Your task to perform on an android device: See recent photos Image 0: 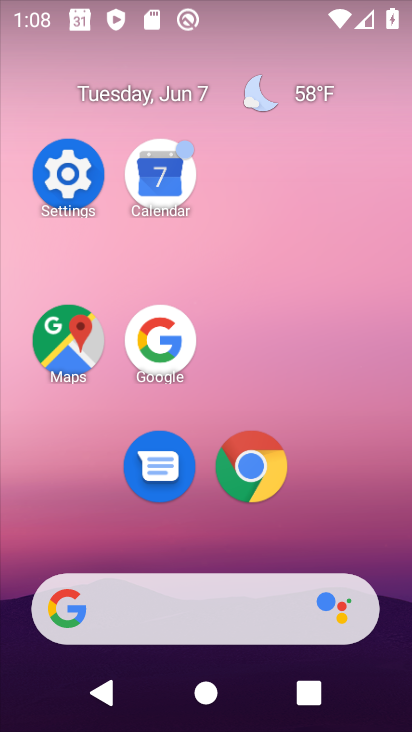
Step 0: drag from (355, 512) to (344, 129)
Your task to perform on an android device: See recent photos Image 1: 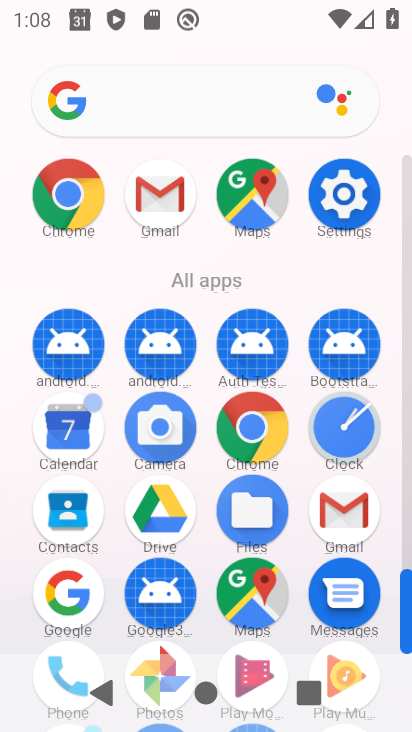
Step 1: drag from (217, 545) to (189, 143)
Your task to perform on an android device: See recent photos Image 2: 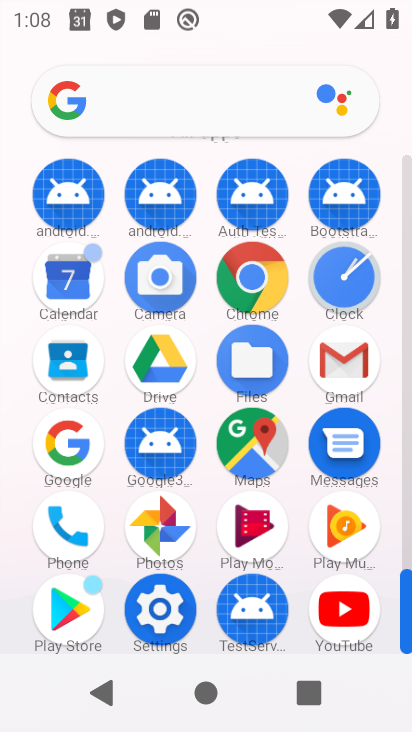
Step 2: drag from (169, 521) to (229, 321)
Your task to perform on an android device: See recent photos Image 3: 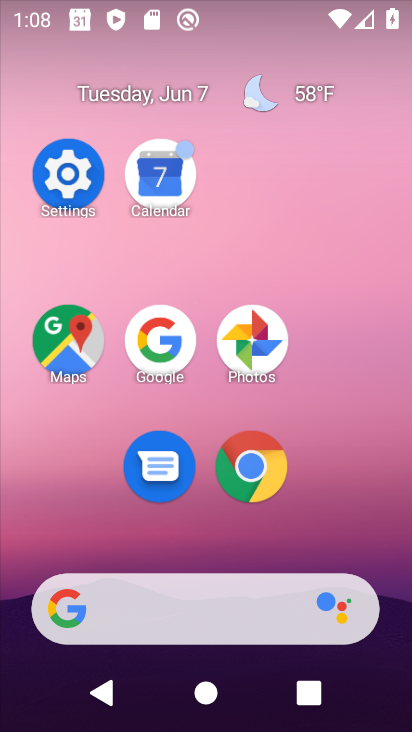
Step 3: click (253, 342)
Your task to perform on an android device: See recent photos Image 4: 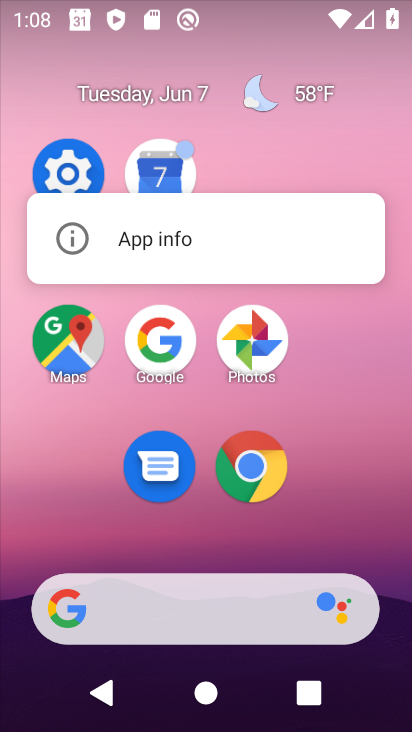
Step 4: click (253, 342)
Your task to perform on an android device: See recent photos Image 5: 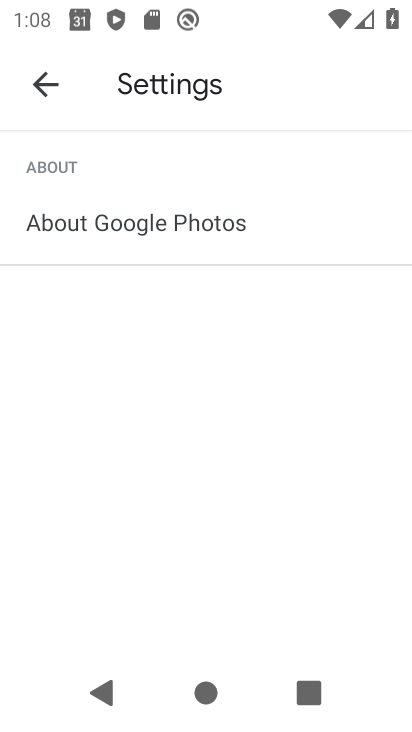
Step 5: click (50, 104)
Your task to perform on an android device: See recent photos Image 6: 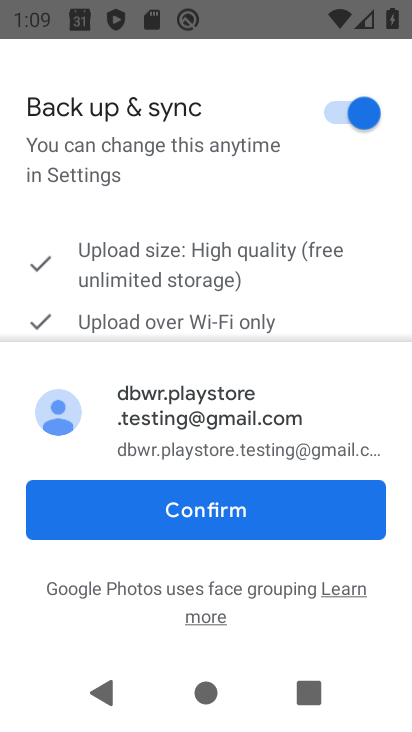
Step 6: click (208, 507)
Your task to perform on an android device: See recent photos Image 7: 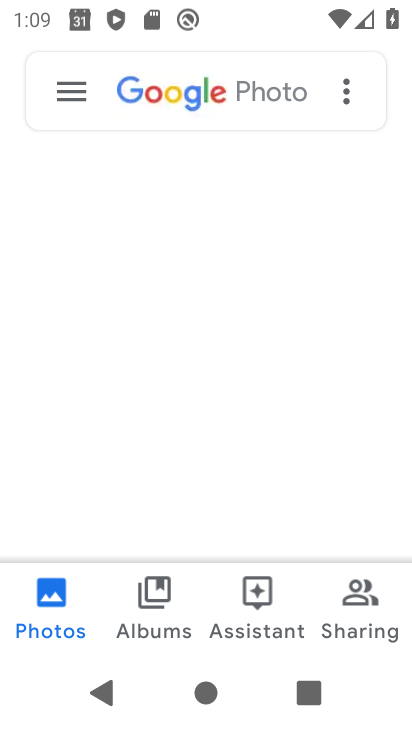
Step 7: click (73, 116)
Your task to perform on an android device: See recent photos Image 8: 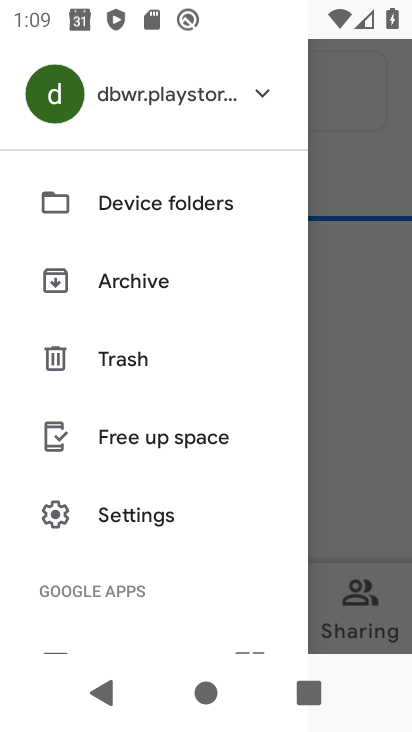
Step 8: click (353, 349)
Your task to perform on an android device: See recent photos Image 9: 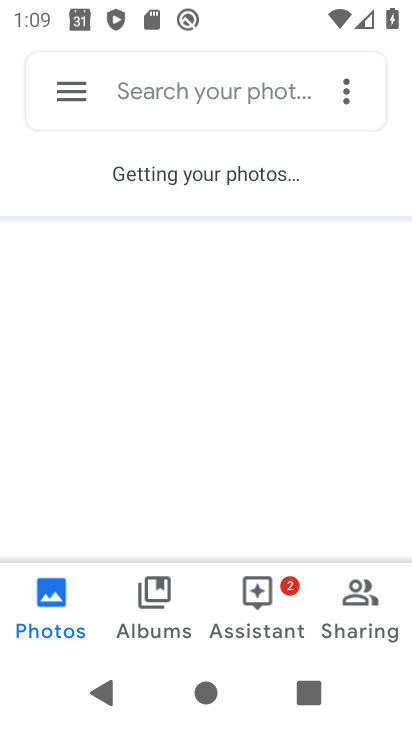
Step 9: task complete